Your task to perform on an android device: change the clock display to analog Image 0: 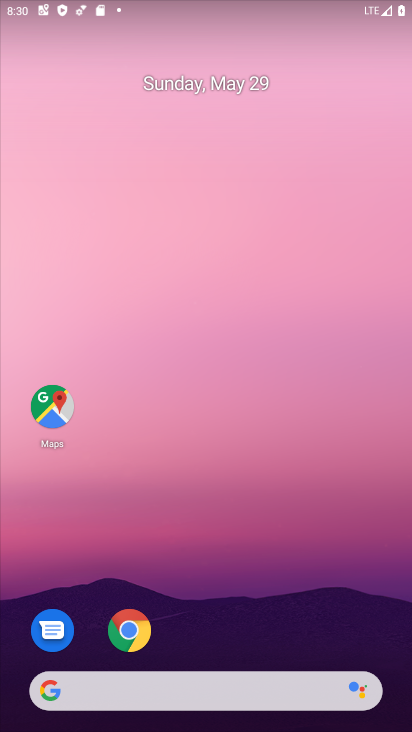
Step 0: drag from (233, 655) to (107, 104)
Your task to perform on an android device: change the clock display to analog Image 1: 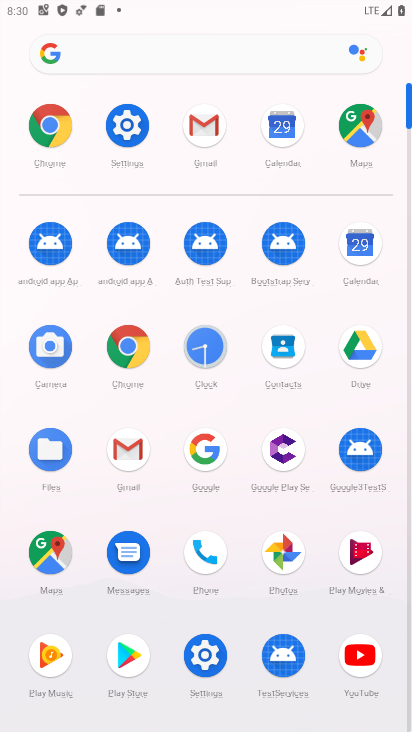
Step 1: click (184, 354)
Your task to perform on an android device: change the clock display to analog Image 2: 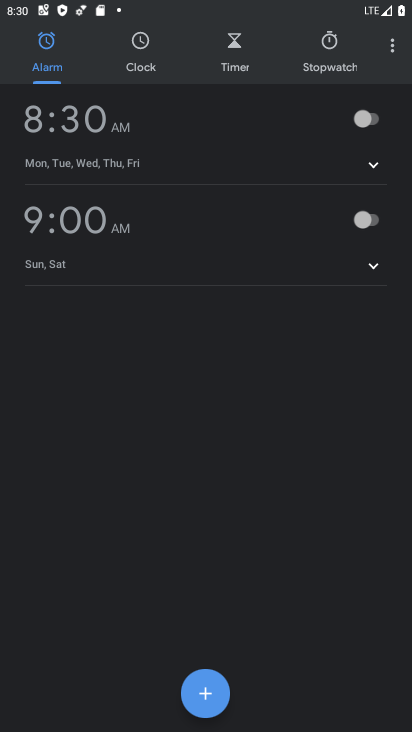
Step 2: click (394, 51)
Your task to perform on an android device: change the clock display to analog Image 3: 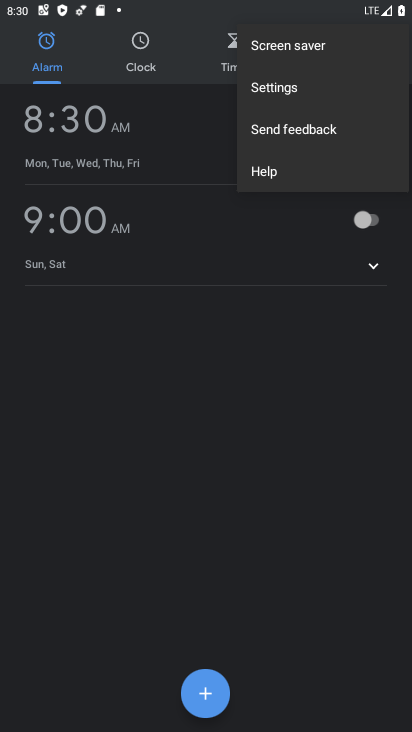
Step 3: click (263, 86)
Your task to perform on an android device: change the clock display to analog Image 4: 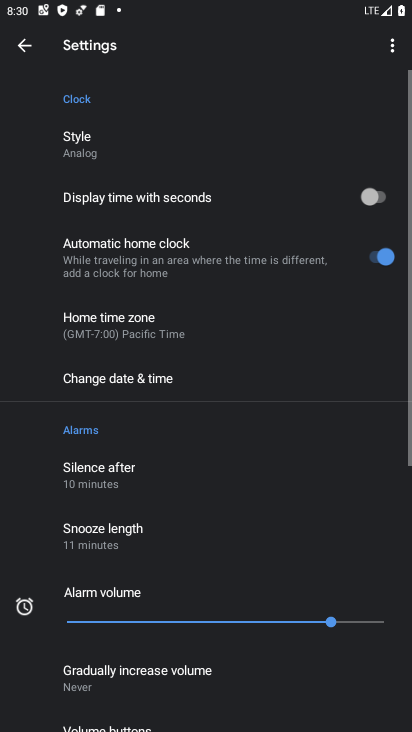
Step 4: click (67, 122)
Your task to perform on an android device: change the clock display to analog Image 5: 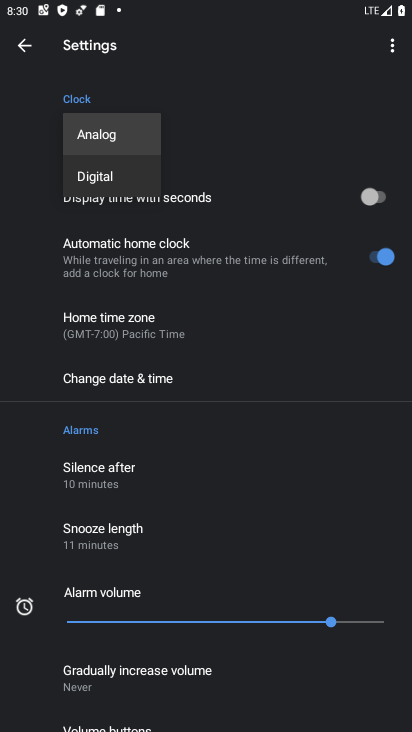
Step 5: click (80, 129)
Your task to perform on an android device: change the clock display to analog Image 6: 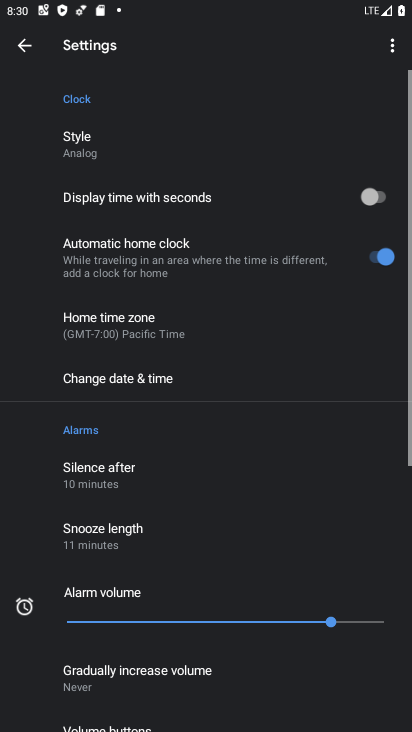
Step 6: task complete